Your task to perform on an android device: Open Google Maps Image 0: 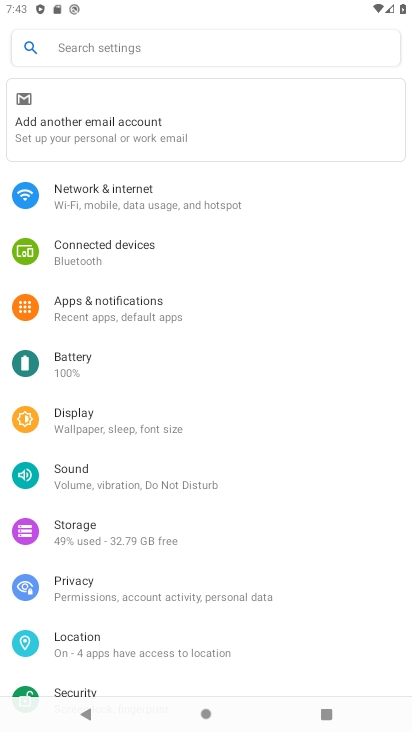
Step 0: press home button
Your task to perform on an android device: Open Google Maps Image 1: 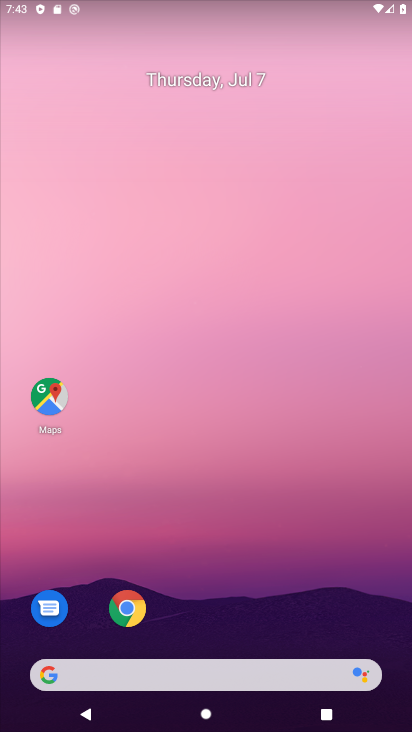
Step 1: click (59, 391)
Your task to perform on an android device: Open Google Maps Image 2: 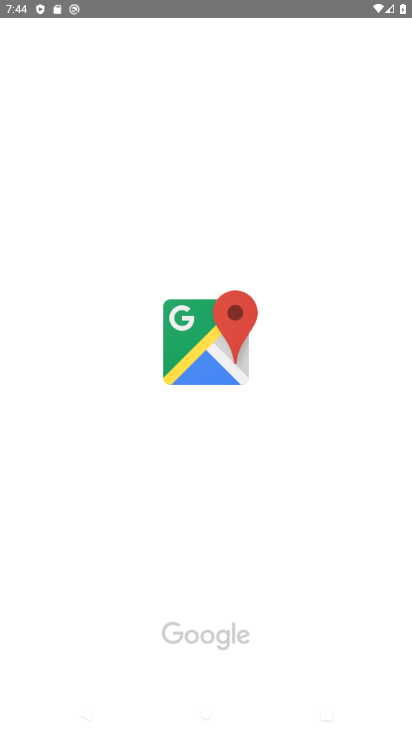
Step 2: drag from (119, 584) to (141, 361)
Your task to perform on an android device: Open Google Maps Image 3: 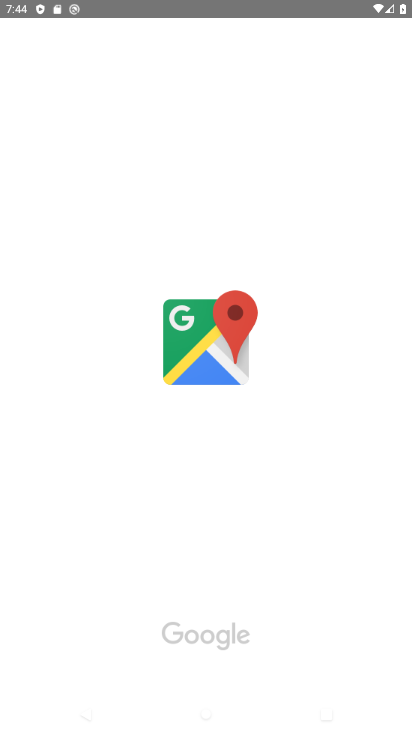
Step 3: click (145, 351)
Your task to perform on an android device: Open Google Maps Image 4: 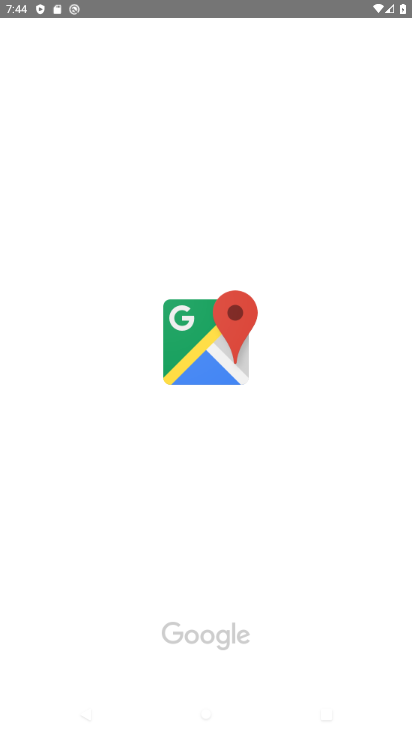
Step 4: task complete